Your task to perform on an android device: Open sound settings Image 0: 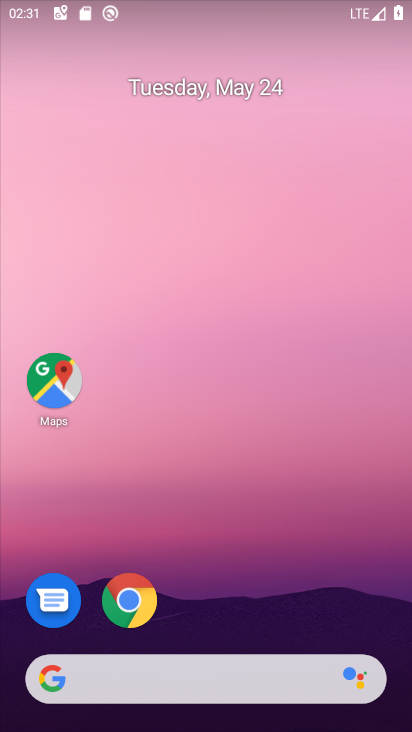
Step 0: drag from (284, 533) to (284, 254)
Your task to perform on an android device: Open sound settings Image 1: 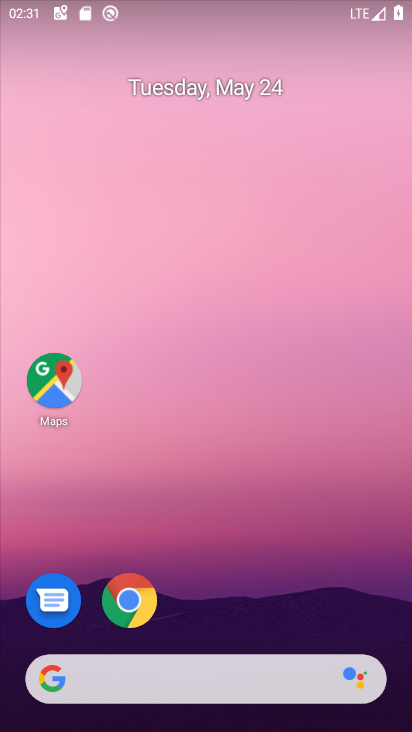
Step 1: drag from (279, 443) to (294, 104)
Your task to perform on an android device: Open sound settings Image 2: 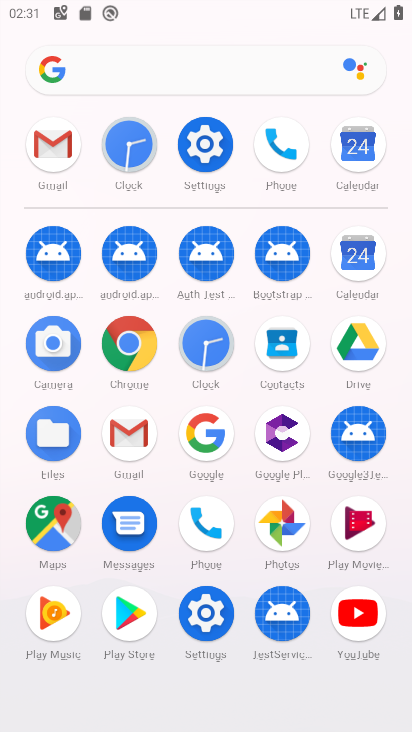
Step 2: click (210, 137)
Your task to perform on an android device: Open sound settings Image 3: 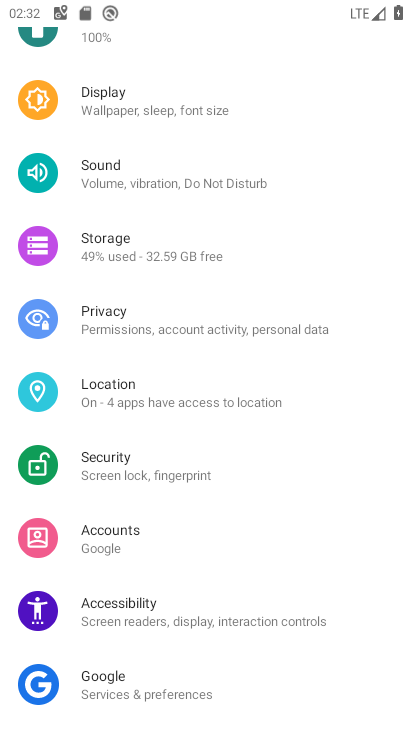
Step 3: click (96, 155)
Your task to perform on an android device: Open sound settings Image 4: 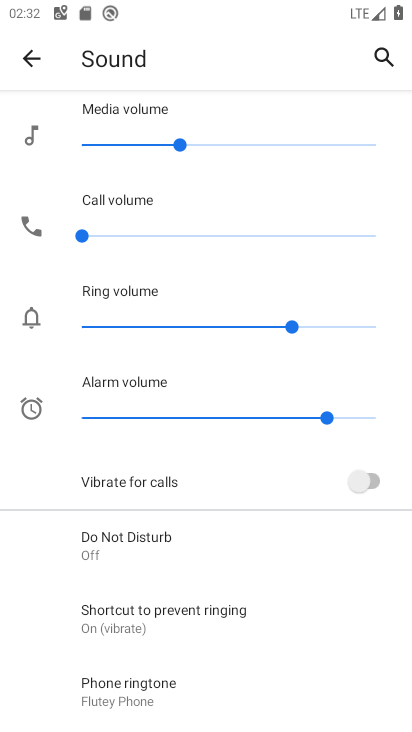
Step 4: task complete